Your task to perform on an android device: manage bookmarks in the chrome app Image 0: 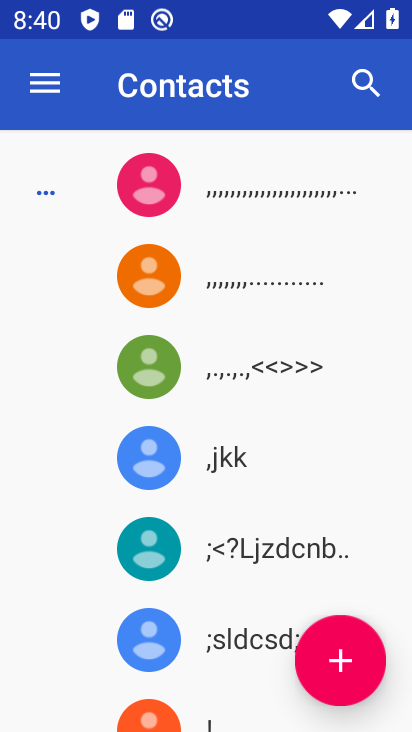
Step 0: press home button
Your task to perform on an android device: manage bookmarks in the chrome app Image 1: 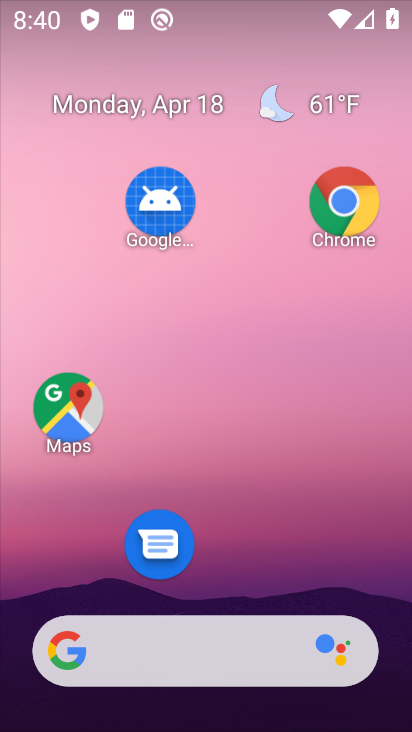
Step 1: click (344, 214)
Your task to perform on an android device: manage bookmarks in the chrome app Image 2: 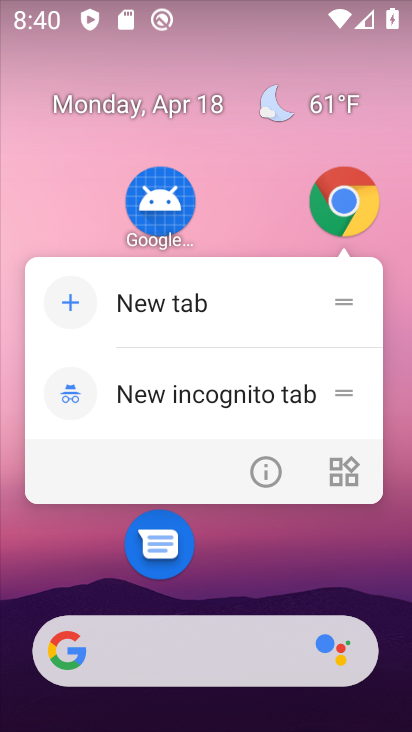
Step 2: click (346, 194)
Your task to perform on an android device: manage bookmarks in the chrome app Image 3: 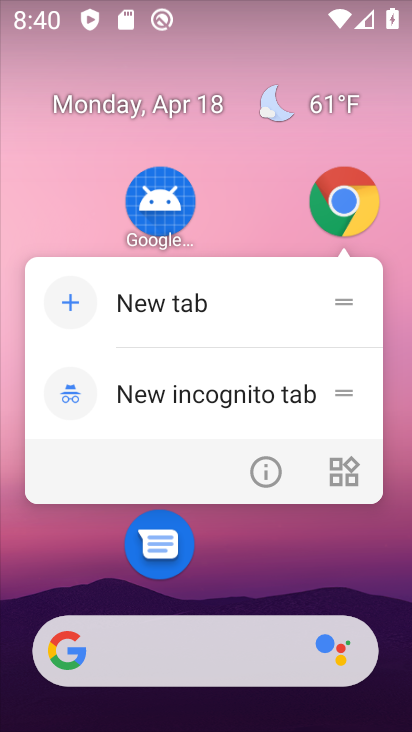
Step 3: click (348, 190)
Your task to perform on an android device: manage bookmarks in the chrome app Image 4: 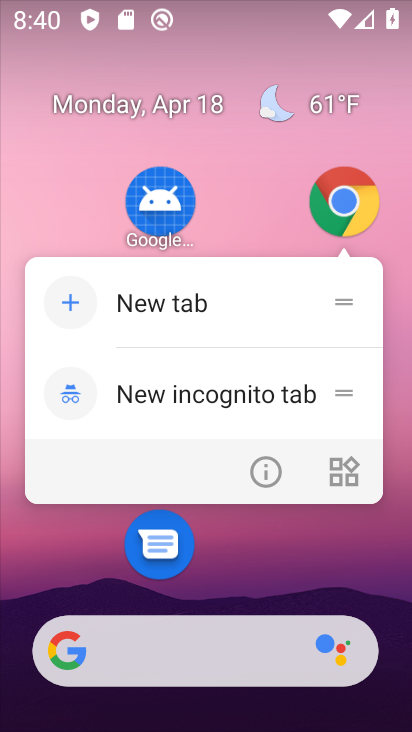
Step 4: click (348, 202)
Your task to perform on an android device: manage bookmarks in the chrome app Image 5: 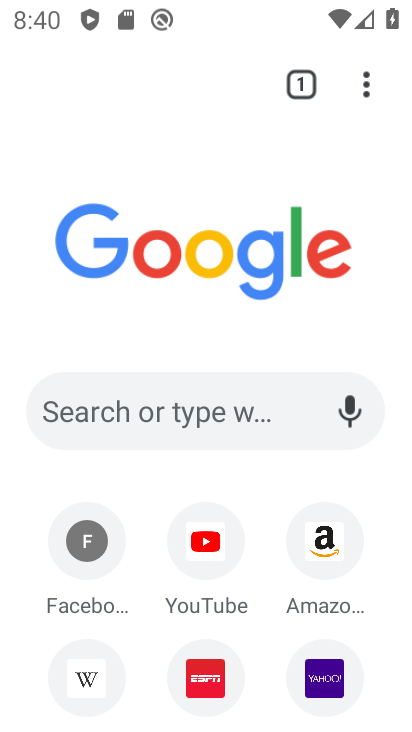
Step 5: click (369, 88)
Your task to perform on an android device: manage bookmarks in the chrome app Image 6: 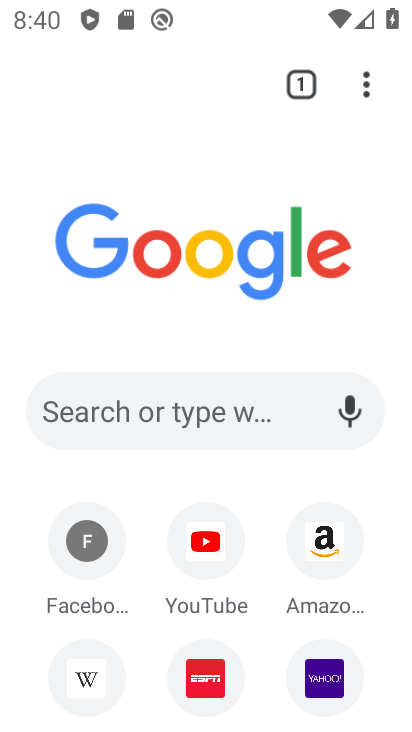
Step 6: click (370, 75)
Your task to perform on an android device: manage bookmarks in the chrome app Image 7: 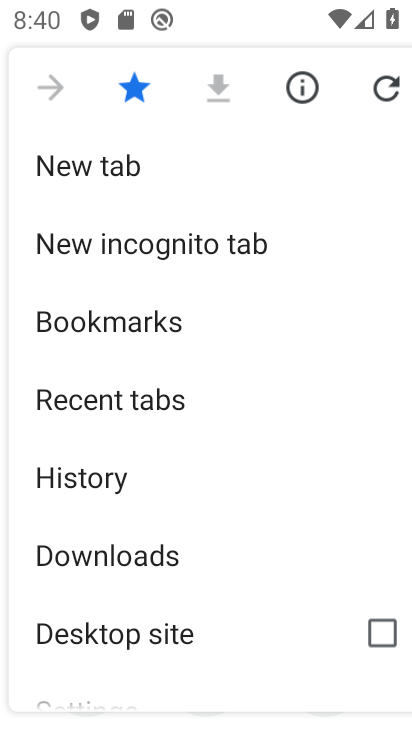
Step 7: click (106, 325)
Your task to perform on an android device: manage bookmarks in the chrome app Image 8: 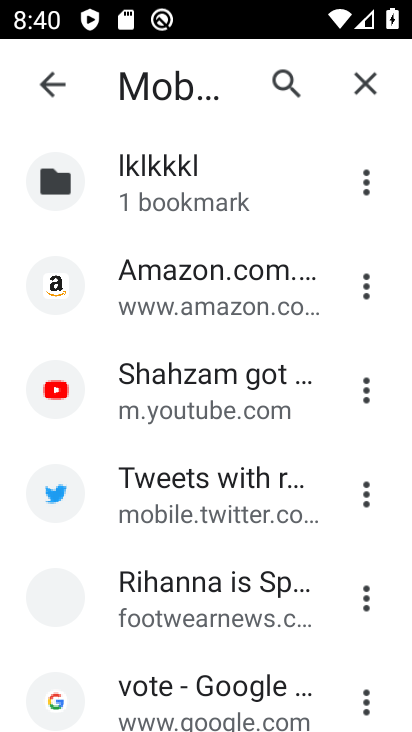
Step 8: click (357, 285)
Your task to perform on an android device: manage bookmarks in the chrome app Image 9: 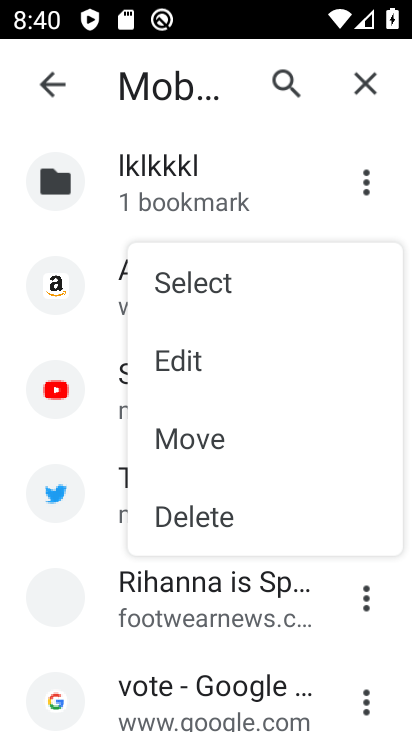
Step 9: click (242, 349)
Your task to perform on an android device: manage bookmarks in the chrome app Image 10: 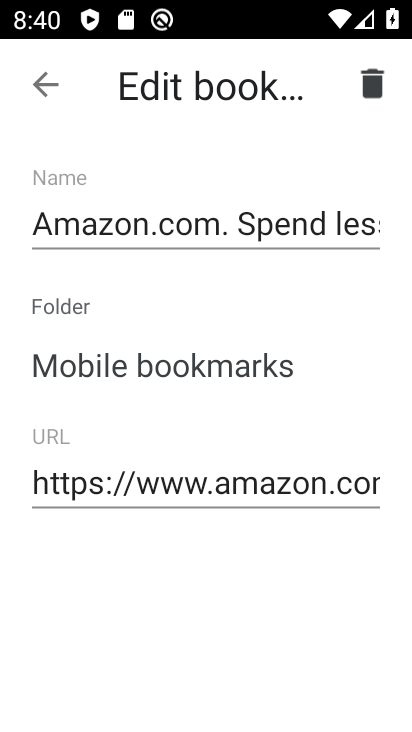
Step 10: click (356, 81)
Your task to perform on an android device: manage bookmarks in the chrome app Image 11: 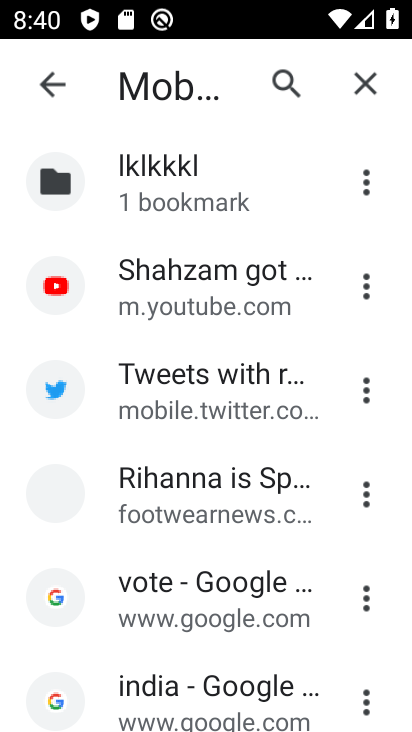
Step 11: task complete